Your task to perform on an android device: show emergency info Image 0: 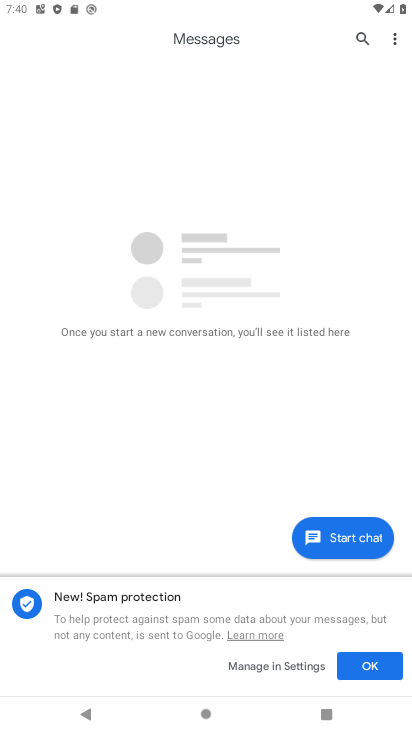
Step 0: drag from (232, 612) to (209, 221)
Your task to perform on an android device: show emergency info Image 1: 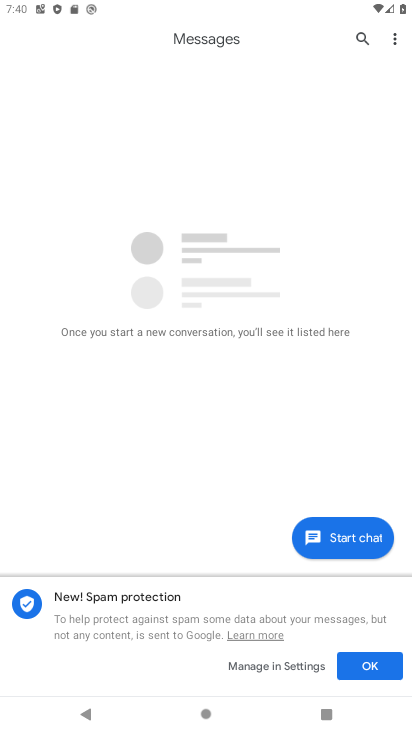
Step 1: press home button
Your task to perform on an android device: show emergency info Image 2: 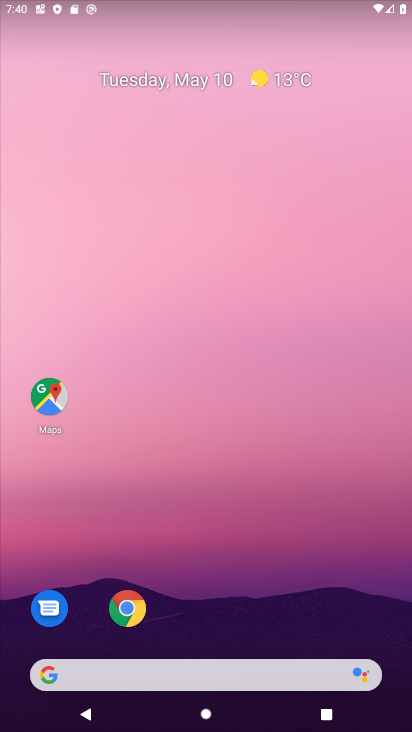
Step 2: drag from (247, 608) to (178, 175)
Your task to perform on an android device: show emergency info Image 3: 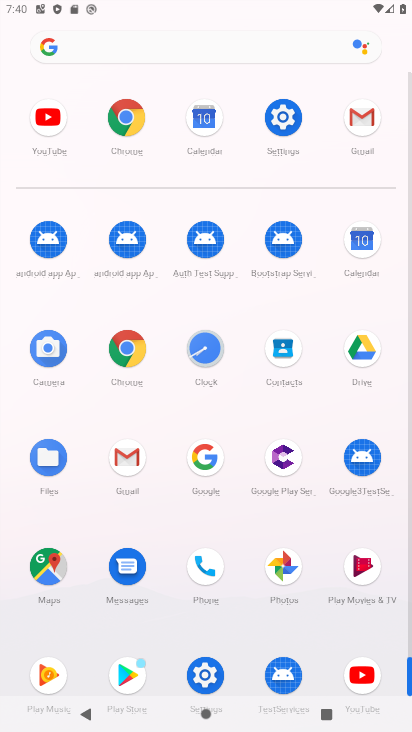
Step 3: click (205, 672)
Your task to perform on an android device: show emergency info Image 4: 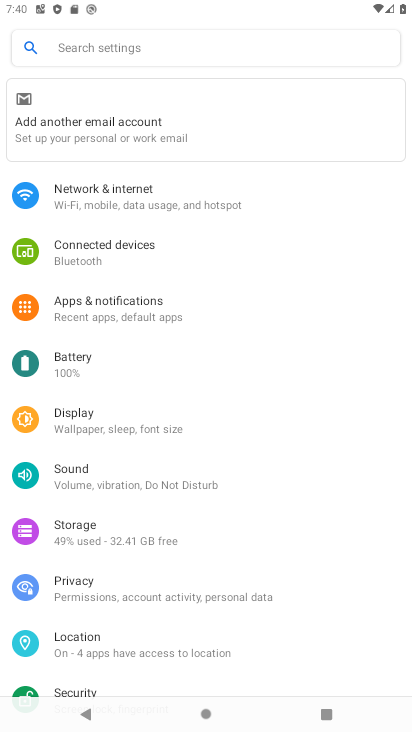
Step 4: drag from (160, 578) to (154, 315)
Your task to perform on an android device: show emergency info Image 5: 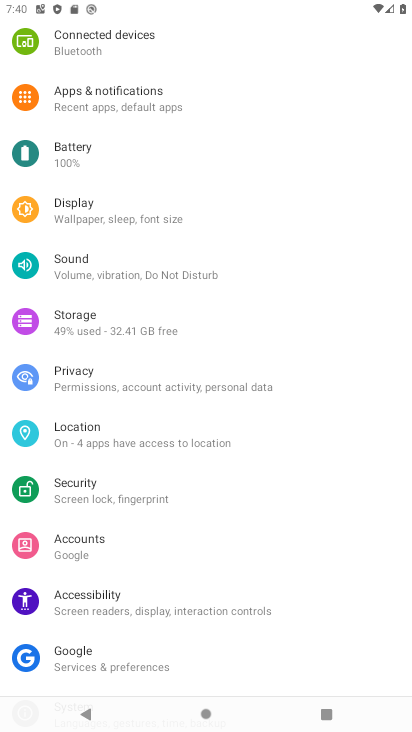
Step 5: drag from (156, 633) to (156, 276)
Your task to perform on an android device: show emergency info Image 6: 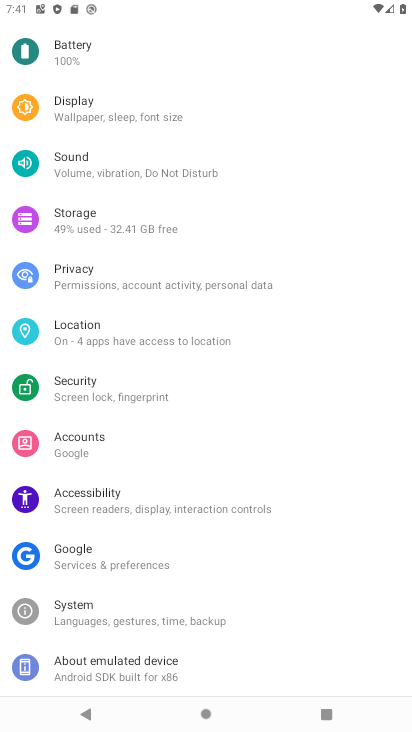
Step 6: click (111, 665)
Your task to perform on an android device: show emergency info Image 7: 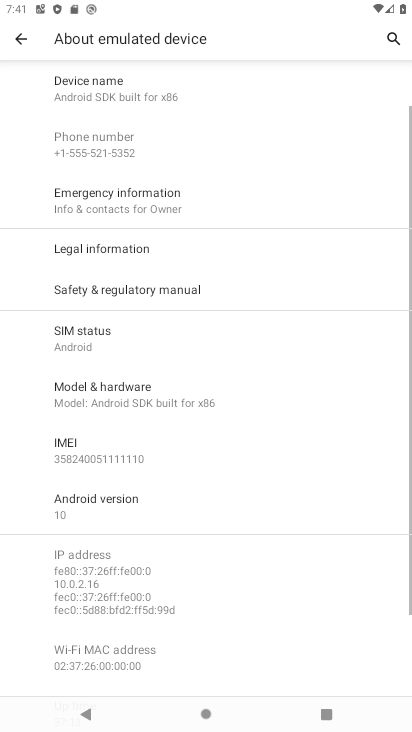
Step 7: click (121, 205)
Your task to perform on an android device: show emergency info Image 8: 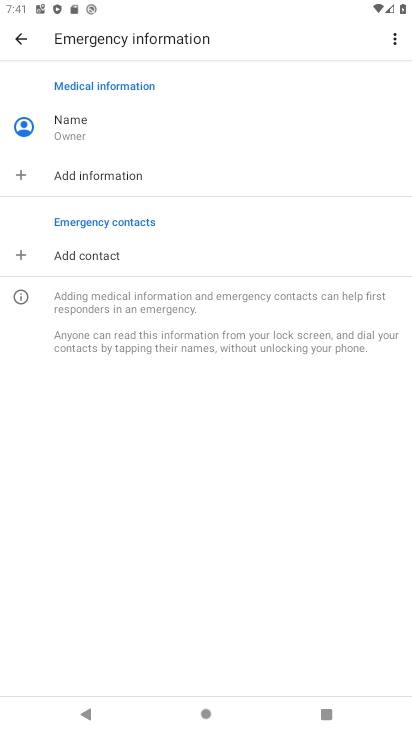
Step 8: task complete